Your task to perform on an android device: View the shopping cart on amazon.com. Search for "bose soundsport free" on amazon.com, select the first entry, and add it to the cart. Image 0: 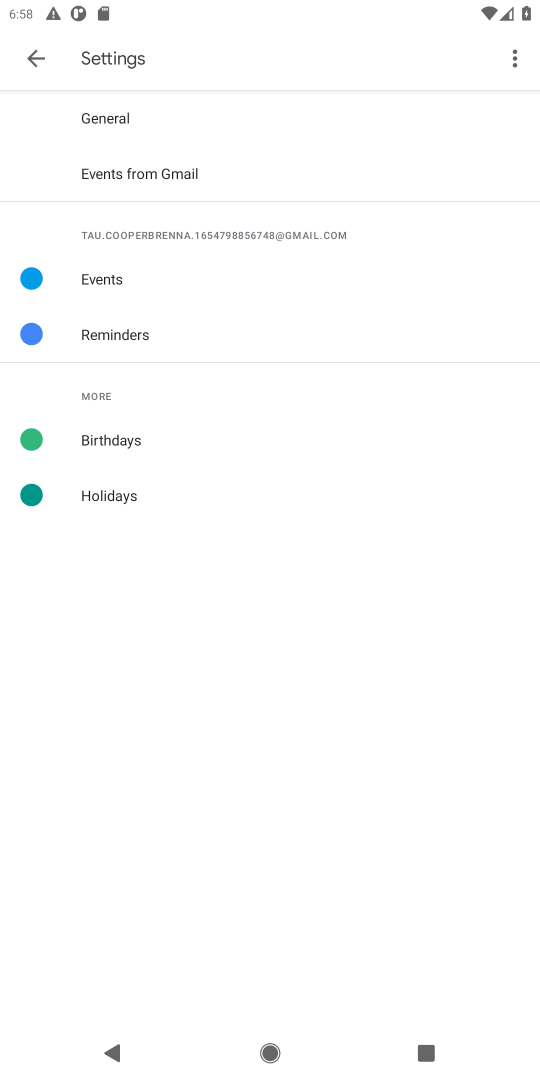
Step 0: press home button
Your task to perform on an android device: View the shopping cart on amazon.com. Search for "bose soundsport free" on amazon.com, select the first entry, and add it to the cart. Image 1: 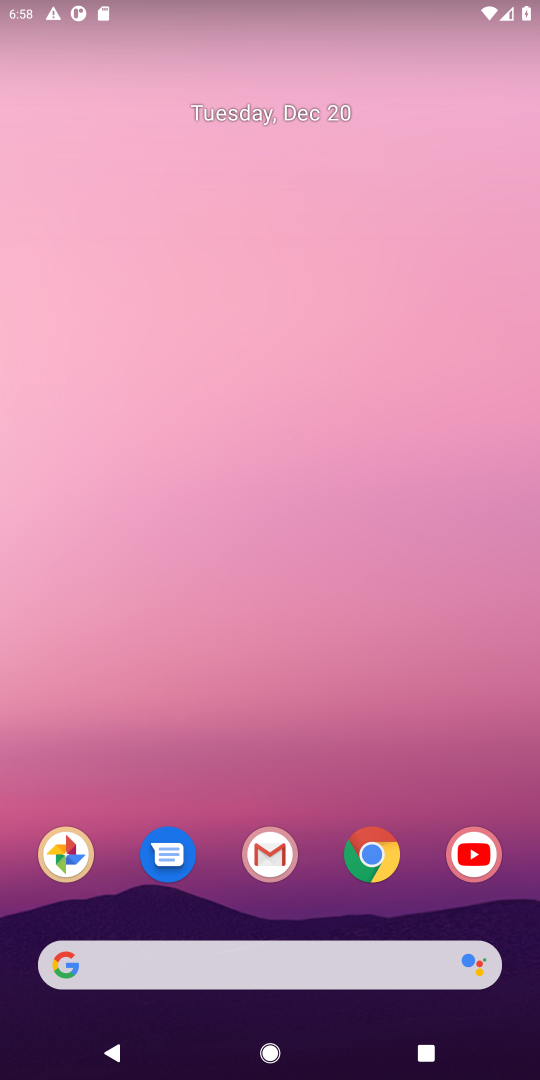
Step 1: click (363, 852)
Your task to perform on an android device: View the shopping cart on amazon.com. Search for "bose soundsport free" on amazon.com, select the first entry, and add it to the cart. Image 2: 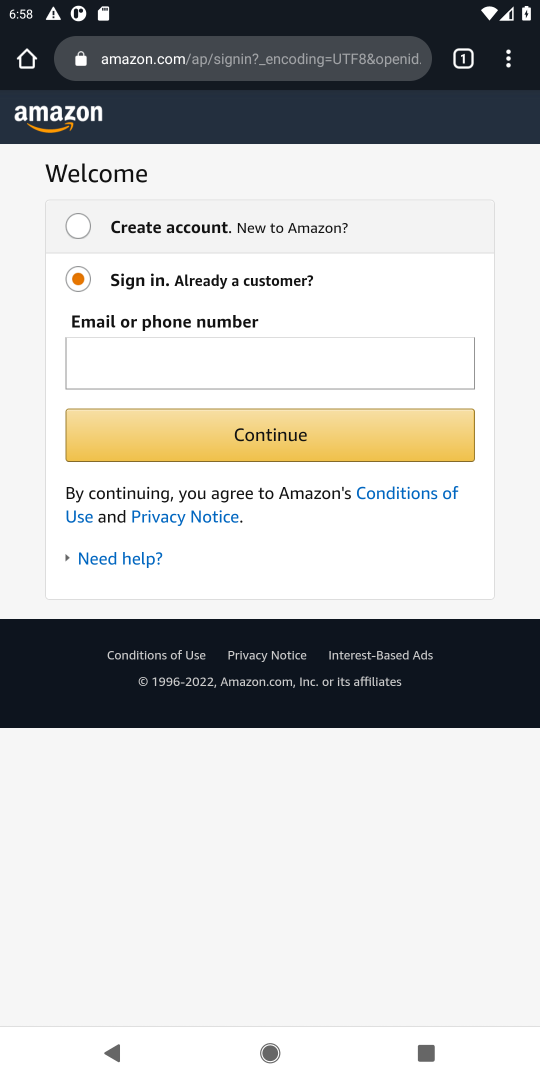
Step 2: press back button
Your task to perform on an android device: View the shopping cart on amazon.com. Search for "bose soundsport free" on amazon.com, select the first entry, and add it to the cart. Image 3: 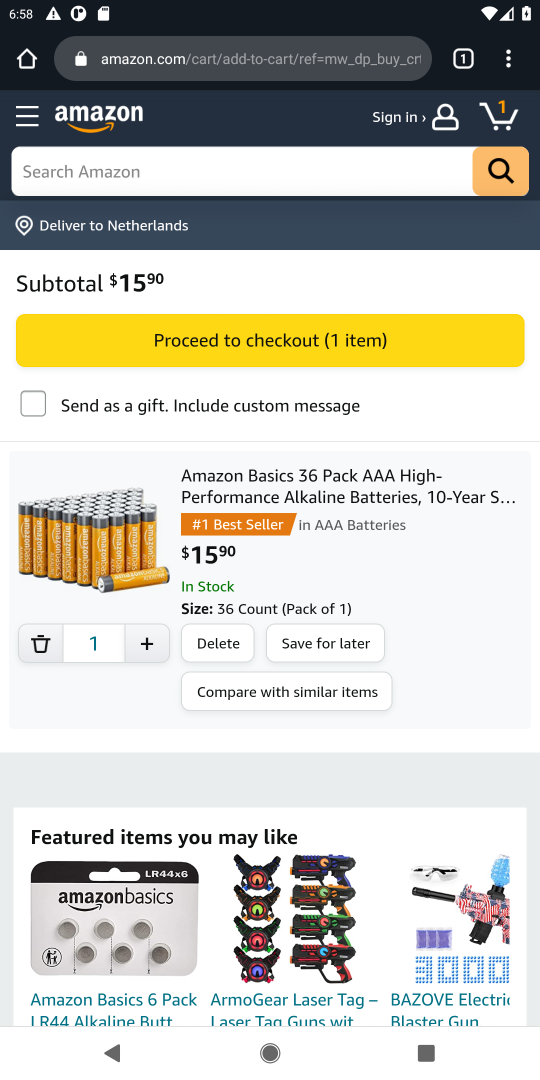
Step 3: click (164, 184)
Your task to perform on an android device: View the shopping cart on amazon.com. Search for "bose soundsport free" on amazon.com, select the first entry, and add it to the cart. Image 4: 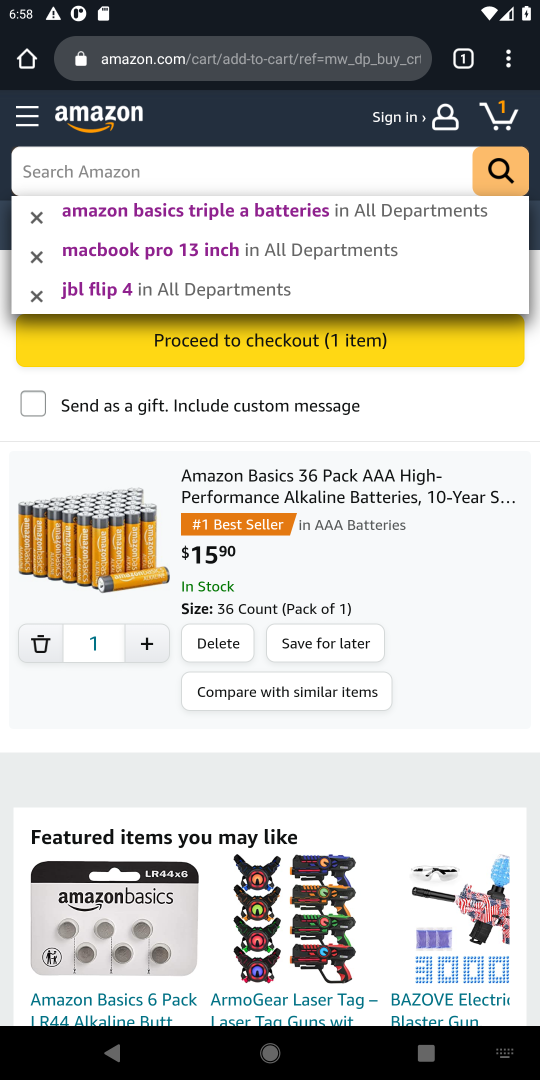
Step 4: type "bose soundsport free"
Your task to perform on an android device: View the shopping cart on amazon.com. Search for "bose soundsport free" on amazon.com, select the first entry, and add it to the cart. Image 5: 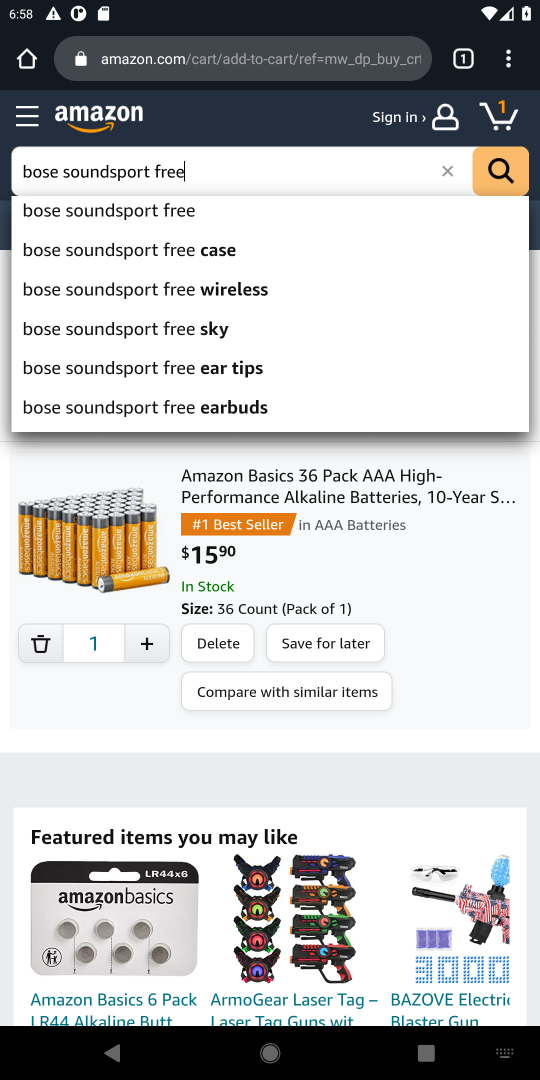
Step 5: click (125, 219)
Your task to perform on an android device: View the shopping cart on amazon.com. Search for "bose soundsport free" on amazon.com, select the first entry, and add it to the cart. Image 6: 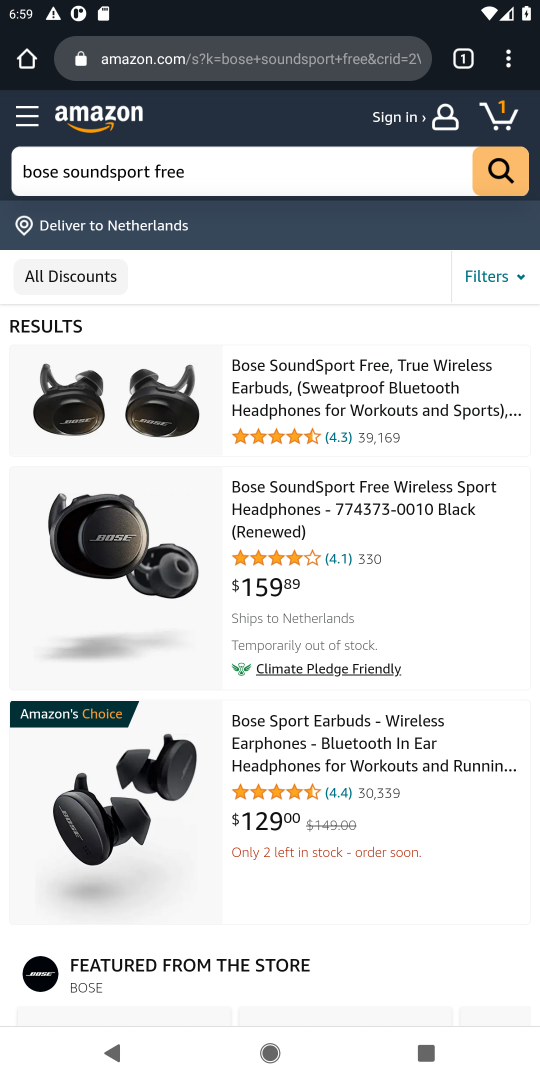
Step 6: click (293, 395)
Your task to perform on an android device: View the shopping cart on amazon.com. Search for "bose soundsport free" on amazon.com, select the first entry, and add it to the cart. Image 7: 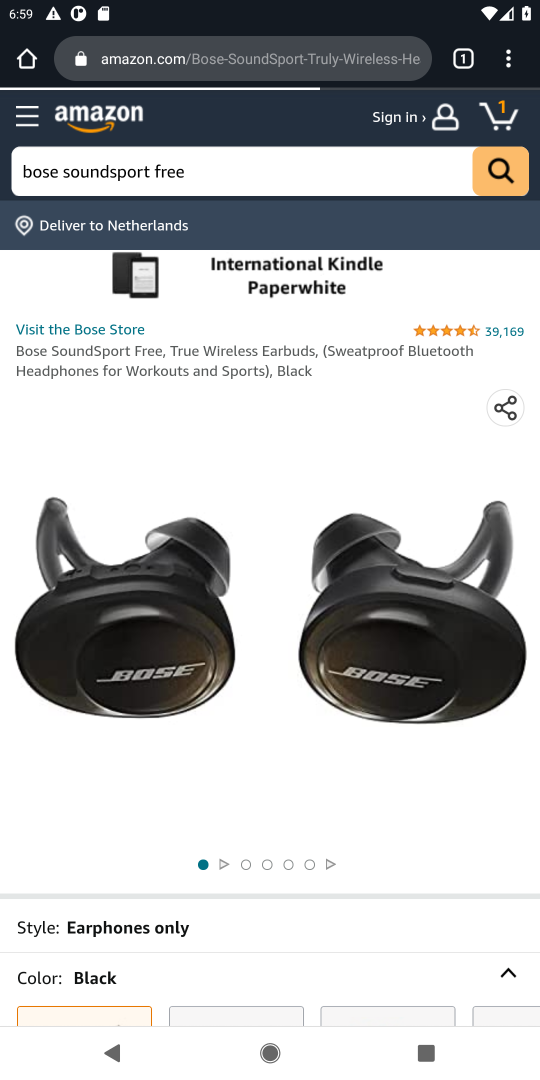
Step 7: click (258, 396)
Your task to perform on an android device: View the shopping cart on amazon.com. Search for "bose soundsport free" on amazon.com, select the first entry, and add it to the cart. Image 8: 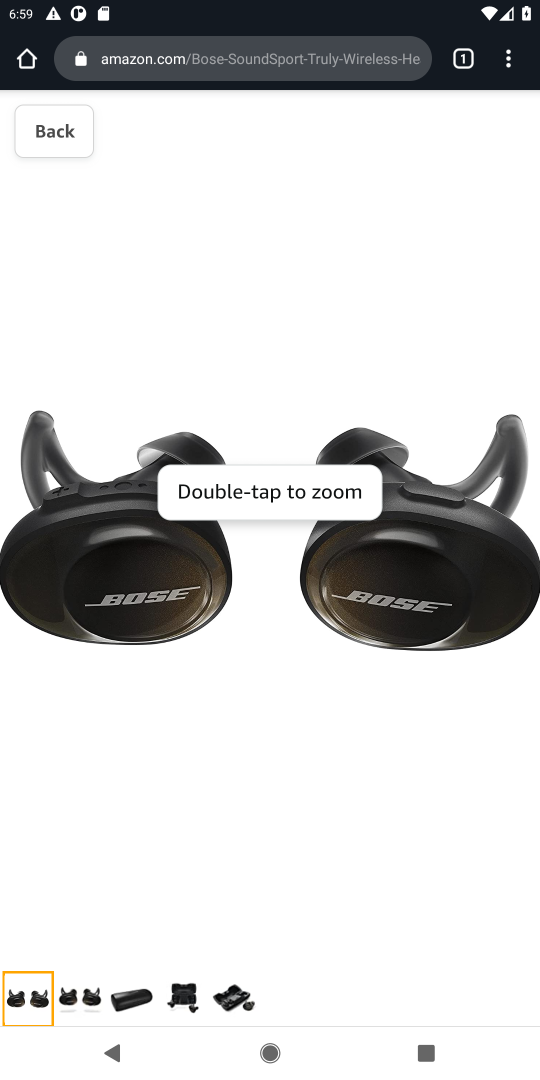
Step 8: drag from (302, 841) to (308, 607)
Your task to perform on an android device: View the shopping cart on amazon.com. Search for "bose soundsport free" on amazon.com, select the first entry, and add it to the cart. Image 9: 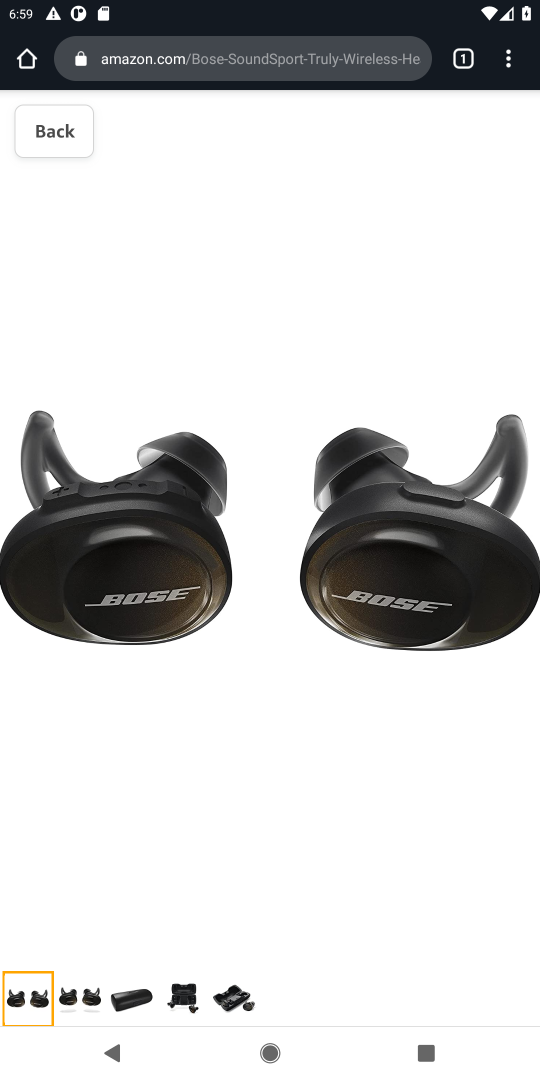
Step 9: click (42, 143)
Your task to perform on an android device: View the shopping cart on amazon.com. Search for "bose soundsport free" on amazon.com, select the first entry, and add it to the cart. Image 10: 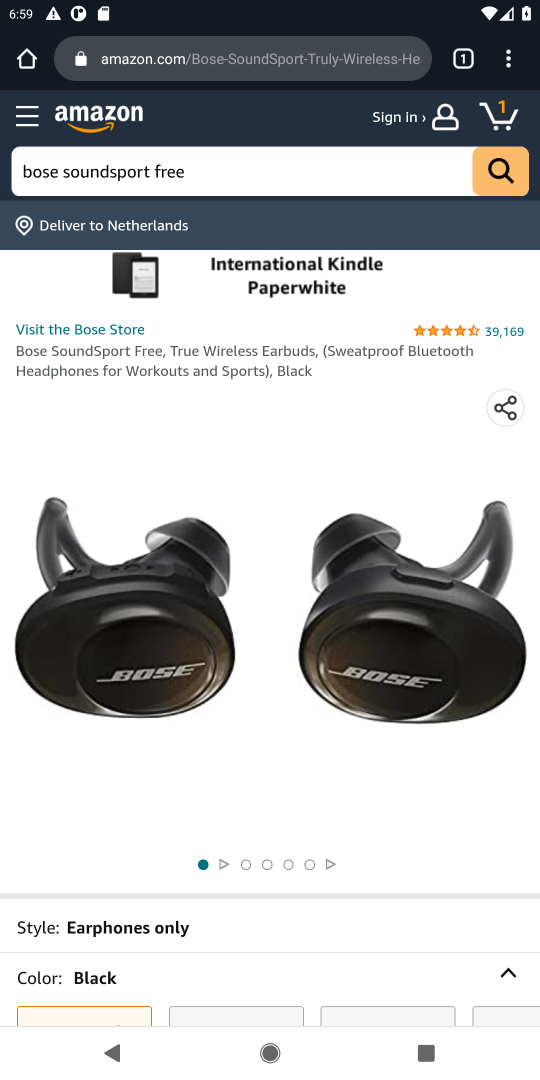
Step 10: task complete